Your task to perform on an android device: check the backup settings in the google photos Image 0: 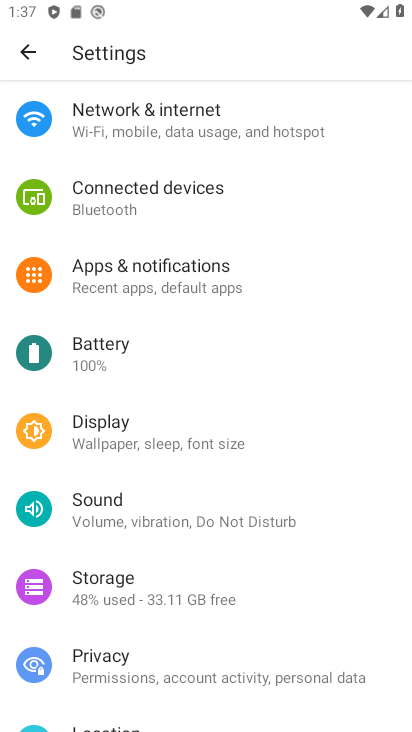
Step 0: press home button
Your task to perform on an android device: check the backup settings in the google photos Image 1: 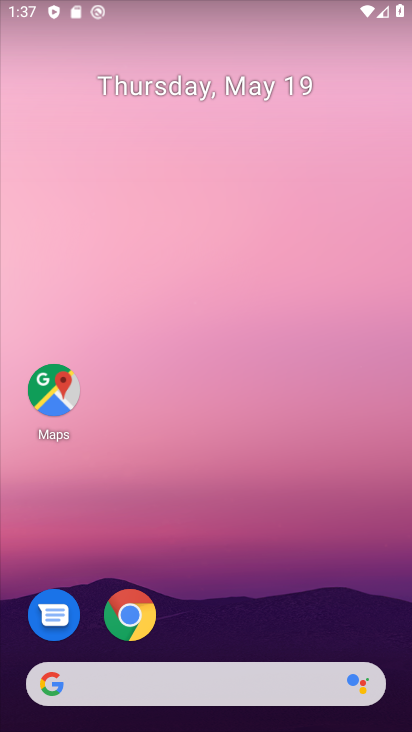
Step 1: drag from (234, 566) to (288, 154)
Your task to perform on an android device: check the backup settings in the google photos Image 2: 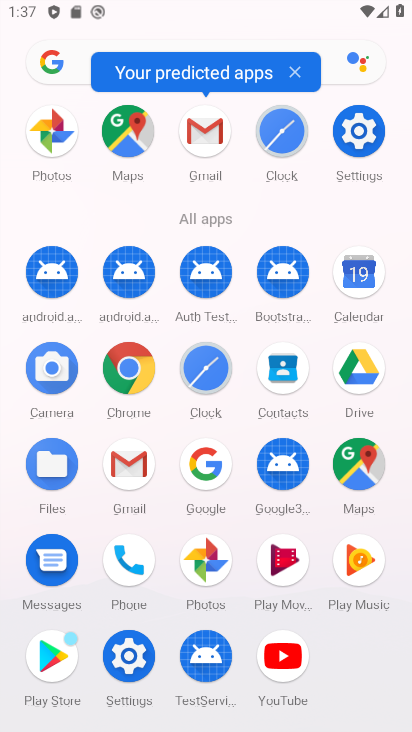
Step 2: click (207, 554)
Your task to perform on an android device: check the backup settings in the google photos Image 3: 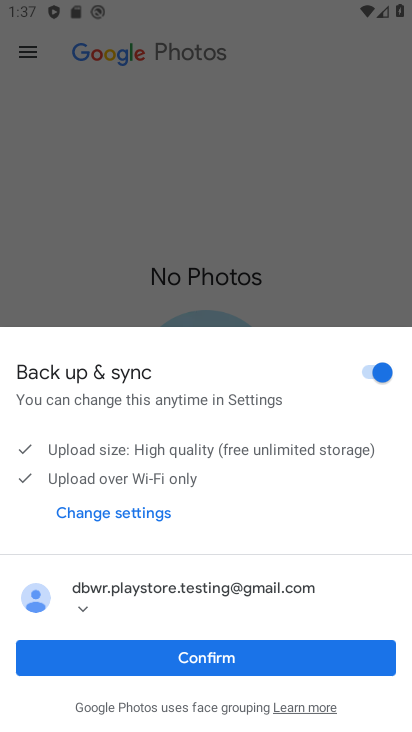
Step 3: click (239, 649)
Your task to perform on an android device: check the backup settings in the google photos Image 4: 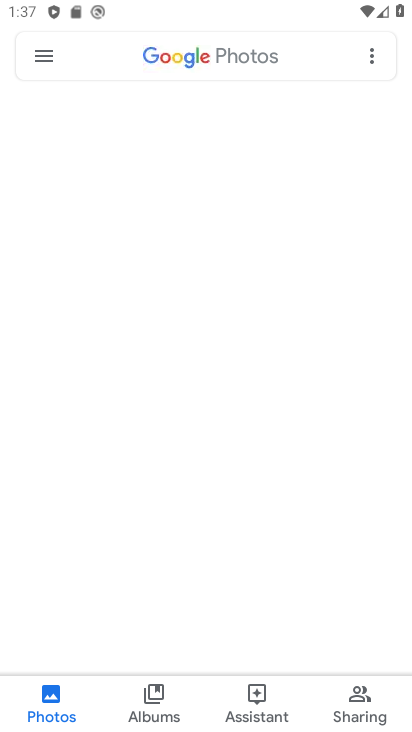
Step 4: click (22, 45)
Your task to perform on an android device: check the backup settings in the google photos Image 5: 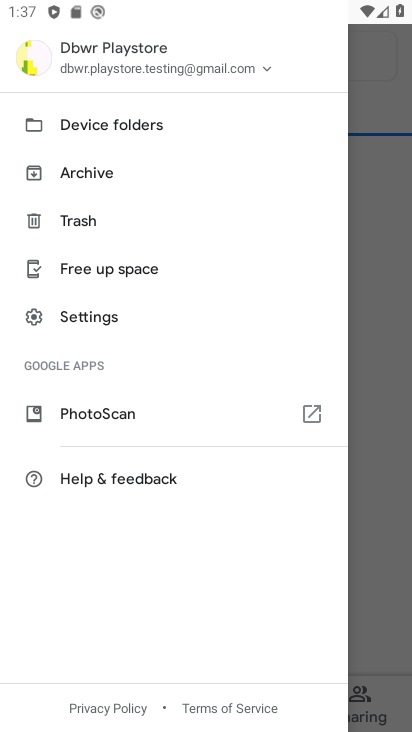
Step 5: click (87, 310)
Your task to perform on an android device: check the backup settings in the google photos Image 6: 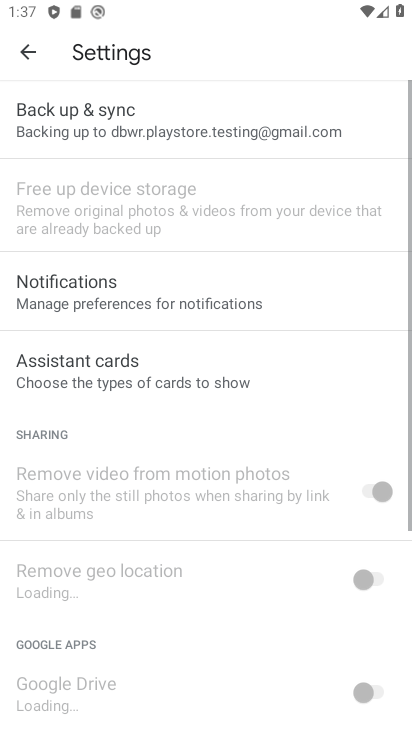
Step 6: click (118, 119)
Your task to perform on an android device: check the backup settings in the google photos Image 7: 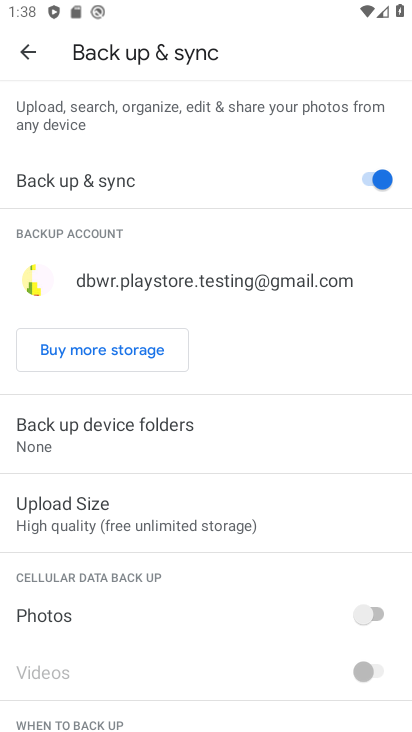
Step 7: task complete